Your task to perform on an android device: clear history in the chrome app Image 0: 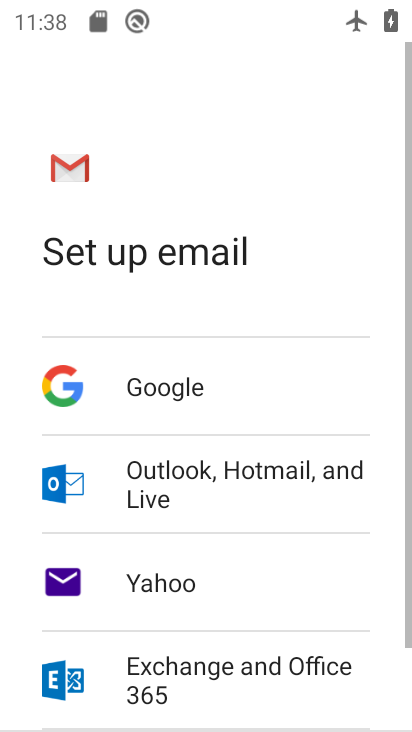
Step 0: press home button
Your task to perform on an android device: clear history in the chrome app Image 1: 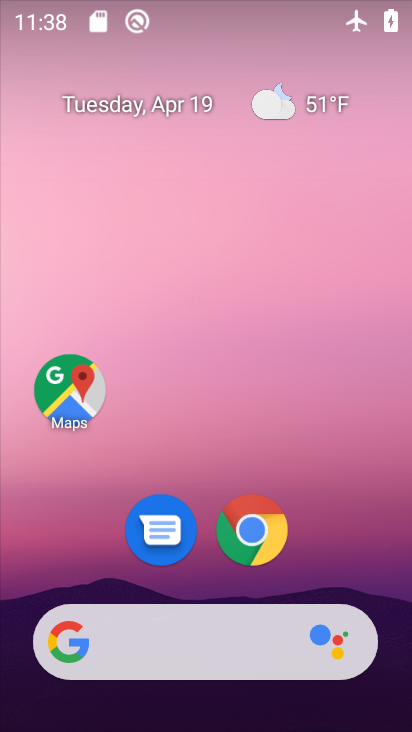
Step 1: drag from (179, 613) to (301, 125)
Your task to perform on an android device: clear history in the chrome app Image 2: 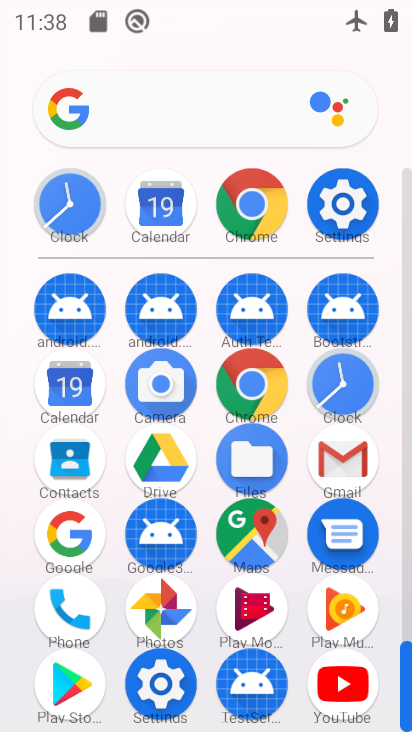
Step 2: click (267, 205)
Your task to perform on an android device: clear history in the chrome app Image 3: 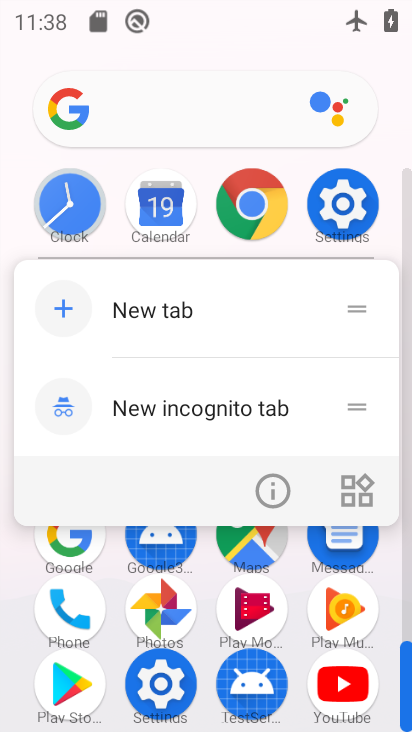
Step 3: click (256, 205)
Your task to perform on an android device: clear history in the chrome app Image 4: 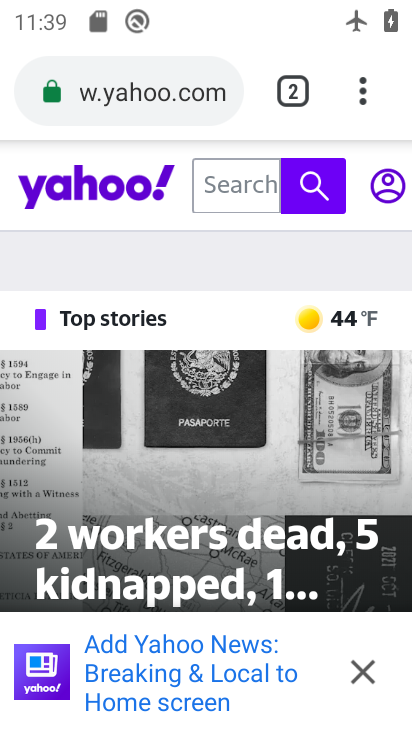
Step 4: click (362, 96)
Your task to perform on an android device: clear history in the chrome app Image 5: 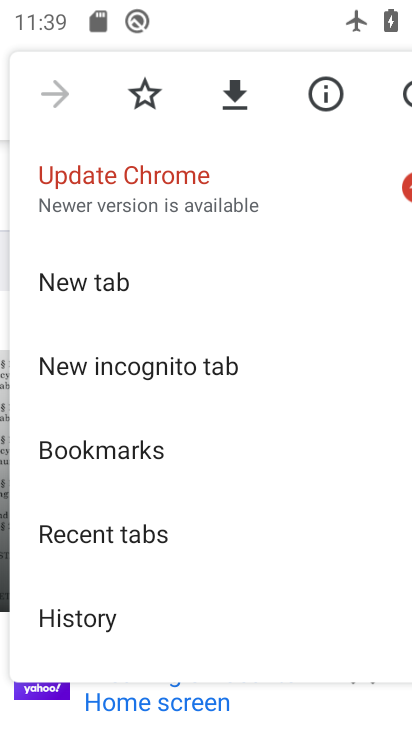
Step 5: click (92, 617)
Your task to perform on an android device: clear history in the chrome app Image 6: 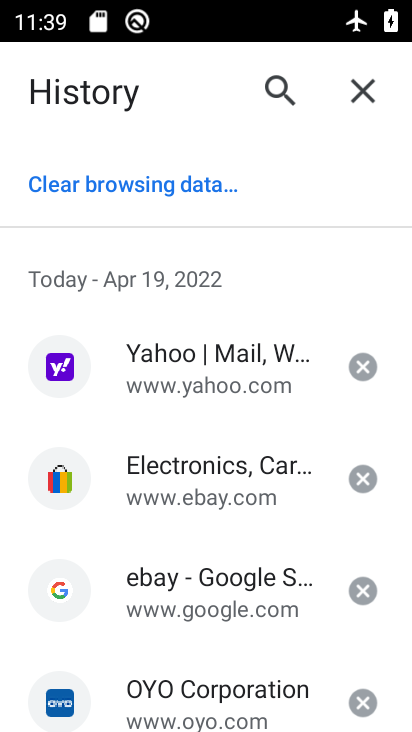
Step 6: click (174, 190)
Your task to perform on an android device: clear history in the chrome app Image 7: 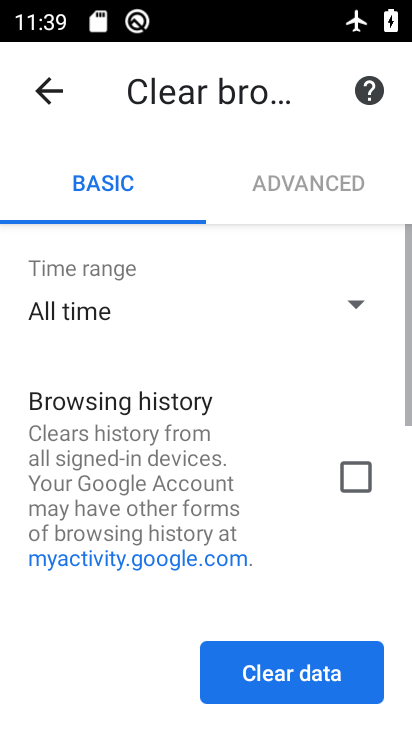
Step 7: click (348, 473)
Your task to perform on an android device: clear history in the chrome app Image 8: 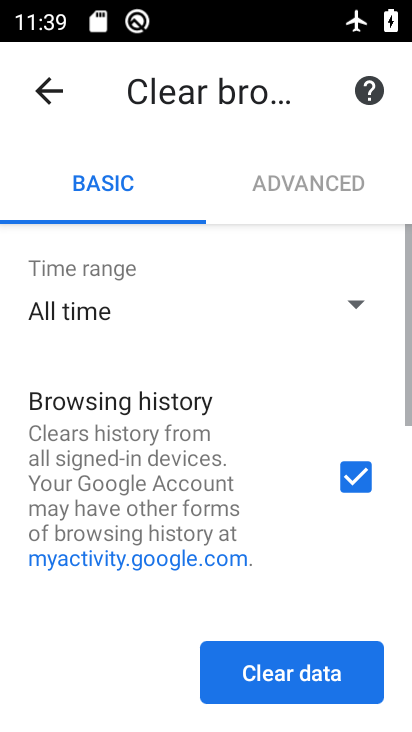
Step 8: drag from (183, 551) to (384, 89)
Your task to perform on an android device: clear history in the chrome app Image 9: 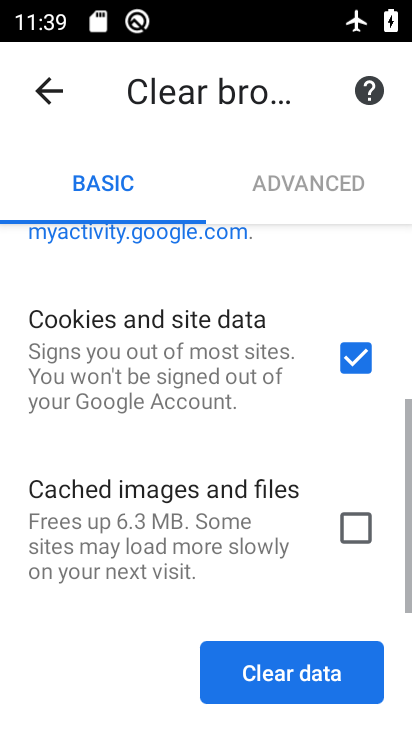
Step 9: click (350, 519)
Your task to perform on an android device: clear history in the chrome app Image 10: 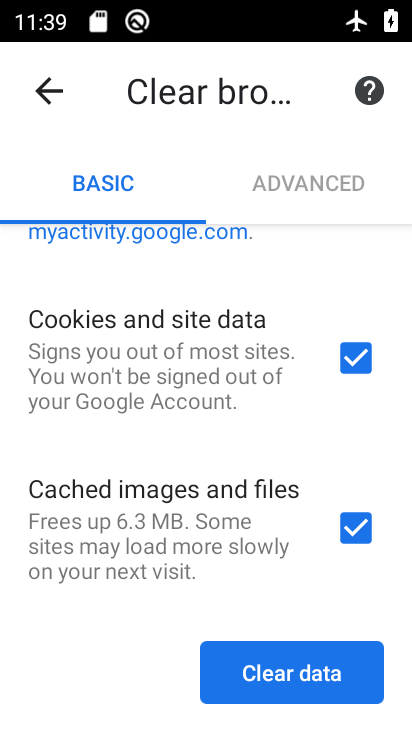
Step 10: click (306, 673)
Your task to perform on an android device: clear history in the chrome app Image 11: 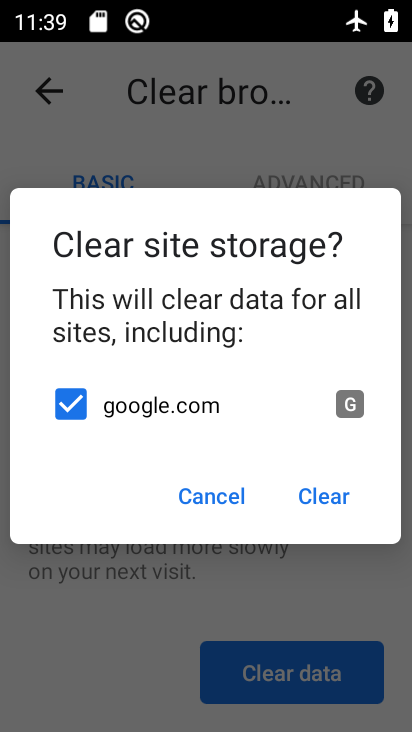
Step 11: click (338, 501)
Your task to perform on an android device: clear history in the chrome app Image 12: 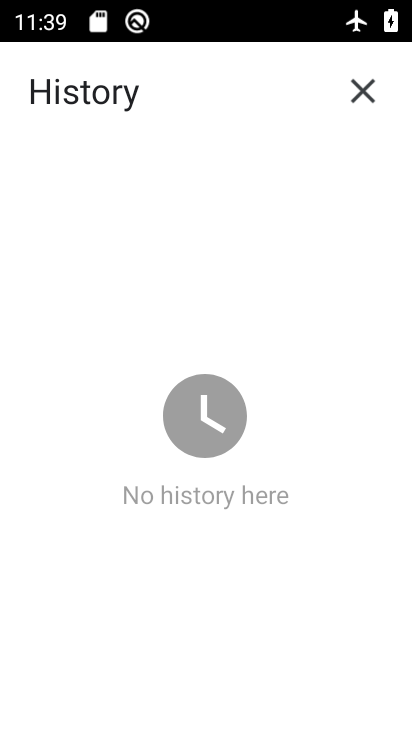
Step 12: task complete